Your task to perform on an android device: toggle priority inbox in the gmail app Image 0: 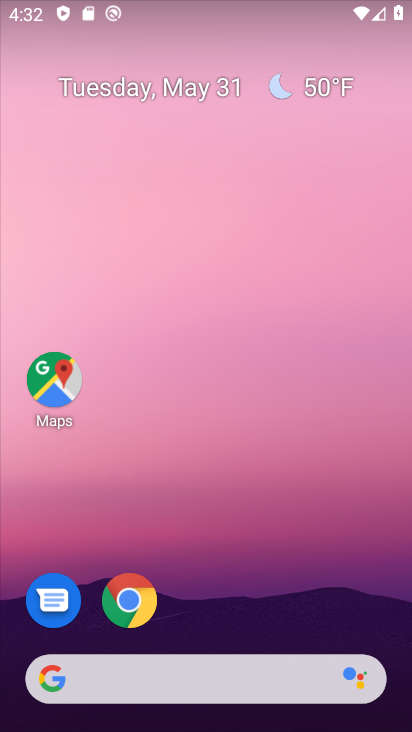
Step 0: drag from (245, 600) to (233, 113)
Your task to perform on an android device: toggle priority inbox in the gmail app Image 1: 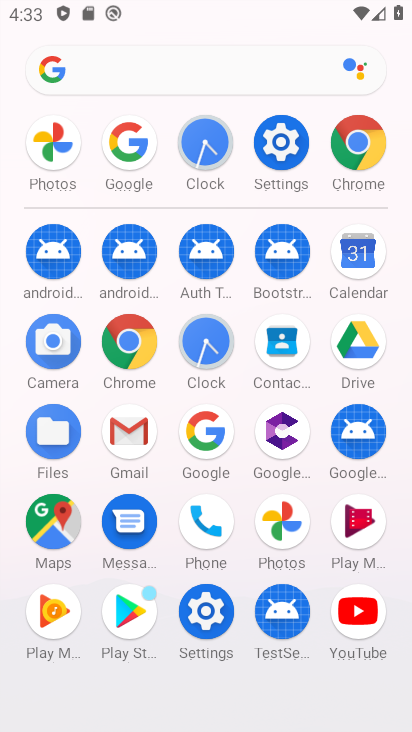
Step 1: click (131, 429)
Your task to perform on an android device: toggle priority inbox in the gmail app Image 2: 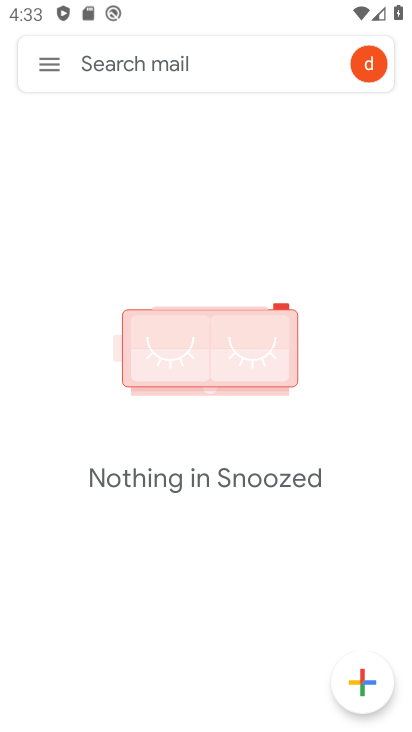
Step 2: click (50, 73)
Your task to perform on an android device: toggle priority inbox in the gmail app Image 3: 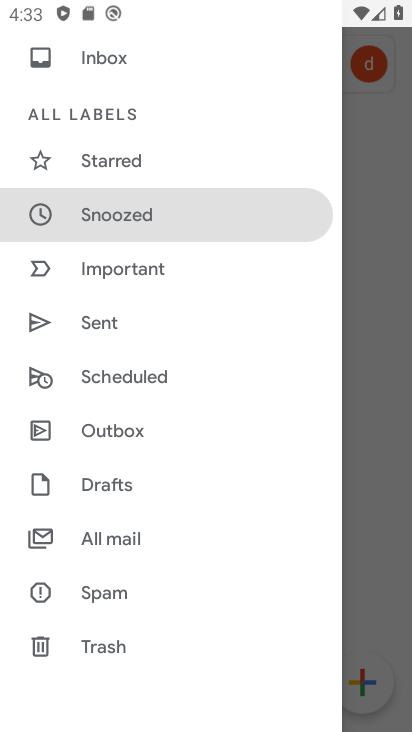
Step 3: drag from (130, 415) to (143, 321)
Your task to perform on an android device: toggle priority inbox in the gmail app Image 4: 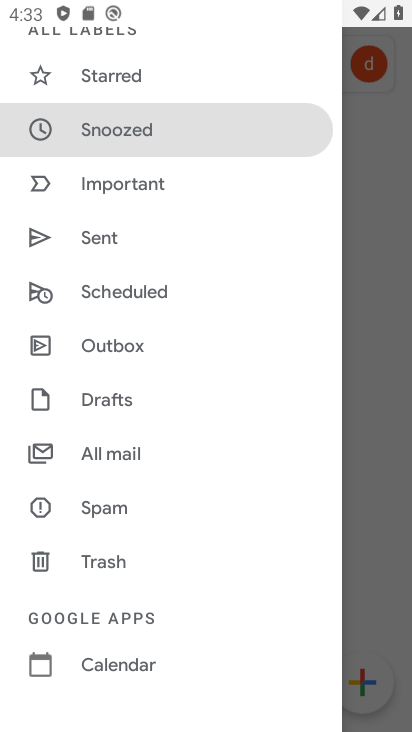
Step 4: drag from (118, 369) to (168, 288)
Your task to perform on an android device: toggle priority inbox in the gmail app Image 5: 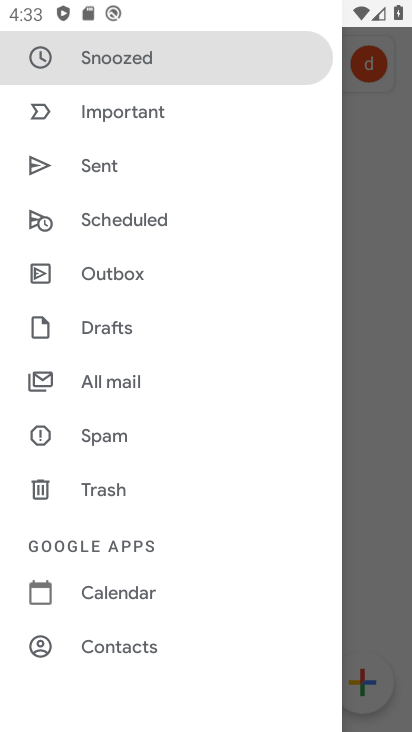
Step 5: drag from (185, 460) to (207, 399)
Your task to perform on an android device: toggle priority inbox in the gmail app Image 6: 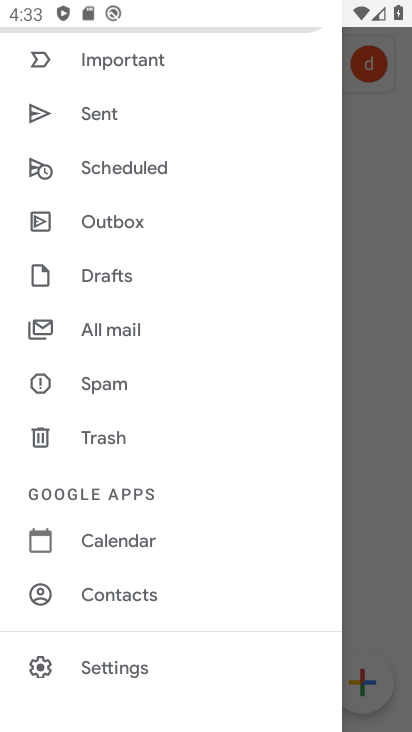
Step 6: click (107, 659)
Your task to perform on an android device: toggle priority inbox in the gmail app Image 7: 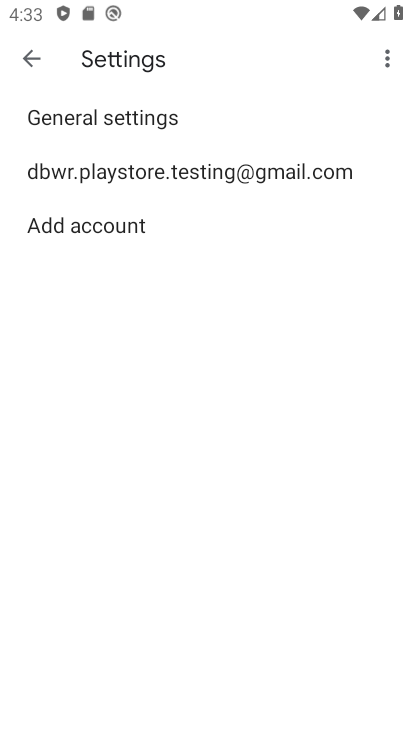
Step 7: click (181, 172)
Your task to perform on an android device: toggle priority inbox in the gmail app Image 8: 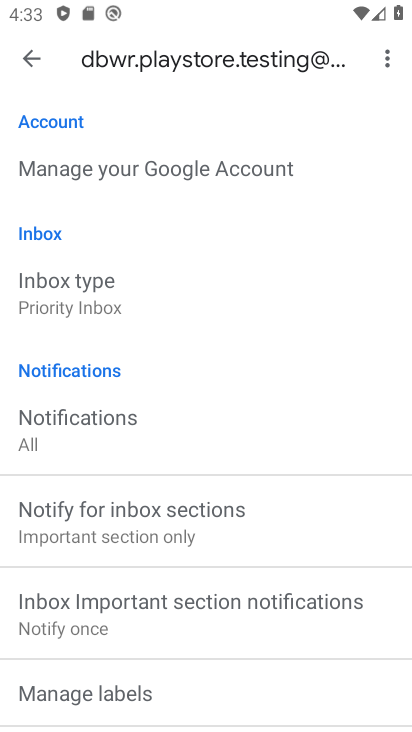
Step 8: click (87, 305)
Your task to perform on an android device: toggle priority inbox in the gmail app Image 9: 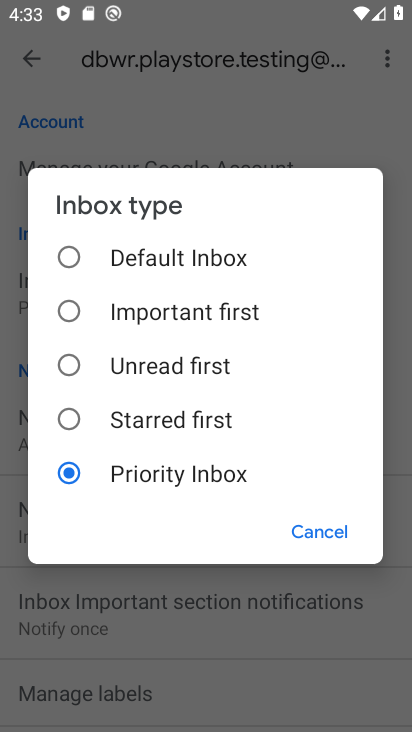
Step 9: click (63, 261)
Your task to perform on an android device: toggle priority inbox in the gmail app Image 10: 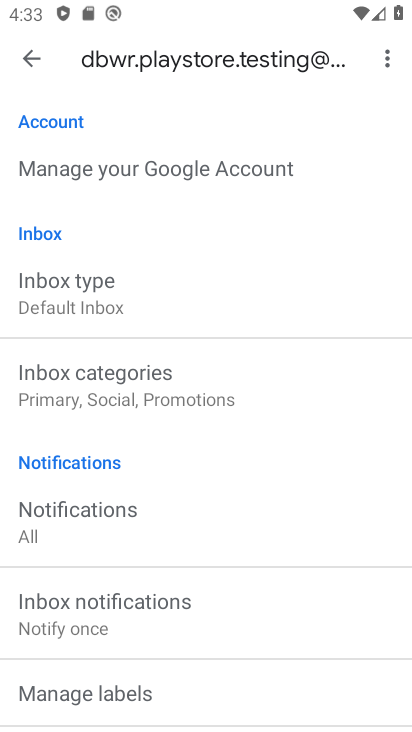
Step 10: task complete